Your task to perform on an android device: Open the web browser Image 0: 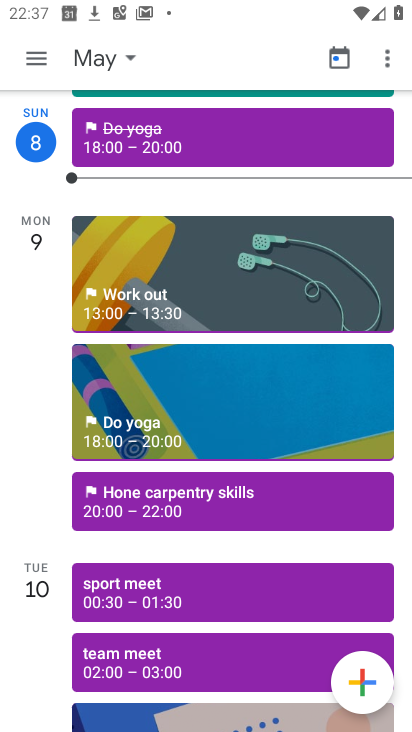
Step 0: press home button
Your task to perform on an android device: Open the web browser Image 1: 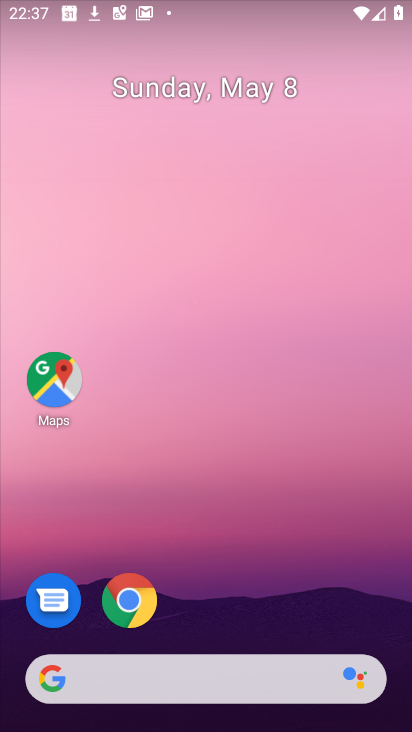
Step 1: drag from (278, 697) to (278, 203)
Your task to perform on an android device: Open the web browser Image 2: 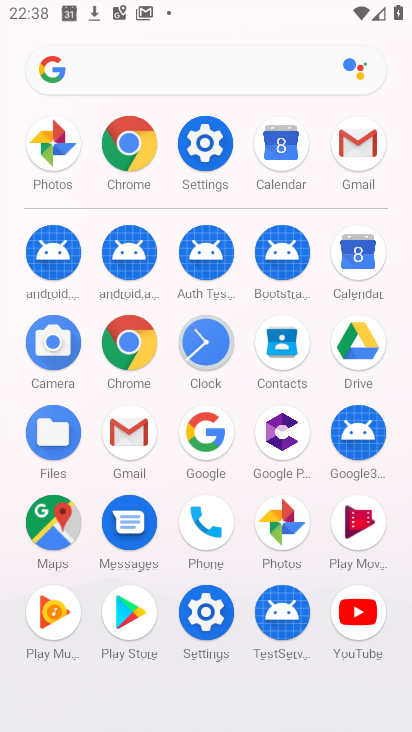
Step 2: click (141, 132)
Your task to perform on an android device: Open the web browser Image 3: 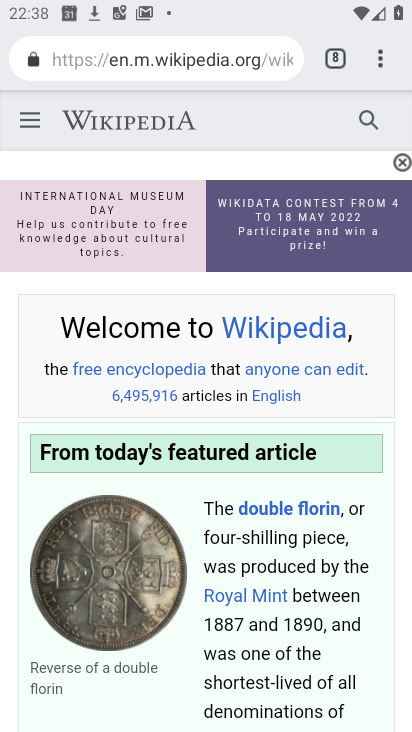
Step 3: click (153, 64)
Your task to perform on an android device: Open the web browser Image 4: 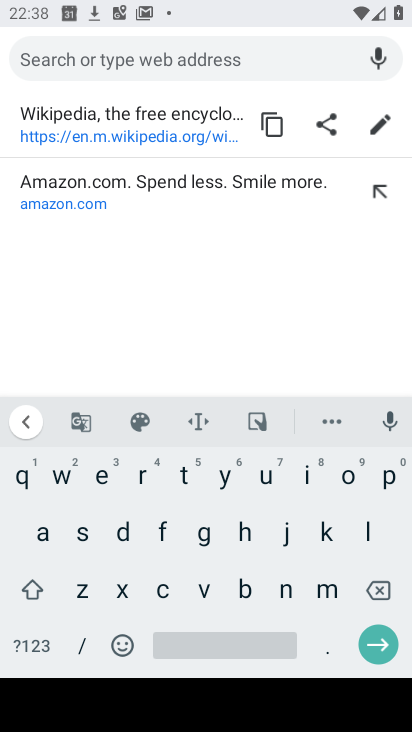
Step 4: task complete